Your task to perform on an android device: Open calendar and show me the fourth week of next month Image 0: 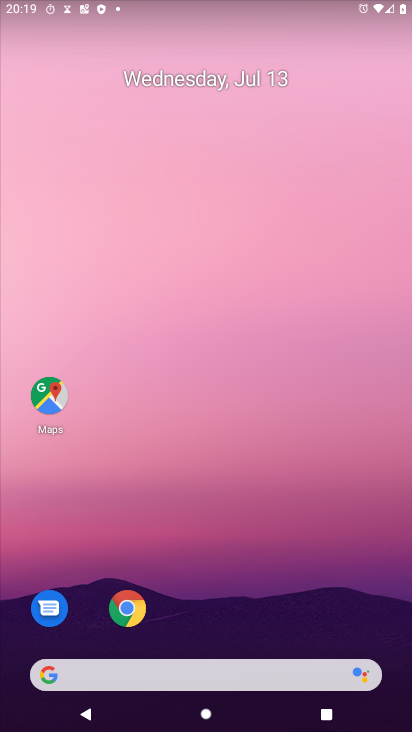
Step 0: drag from (201, 637) to (198, 126)
Your task to perform on an android device: Open calendar and show me the fourth week of next month Image 1: 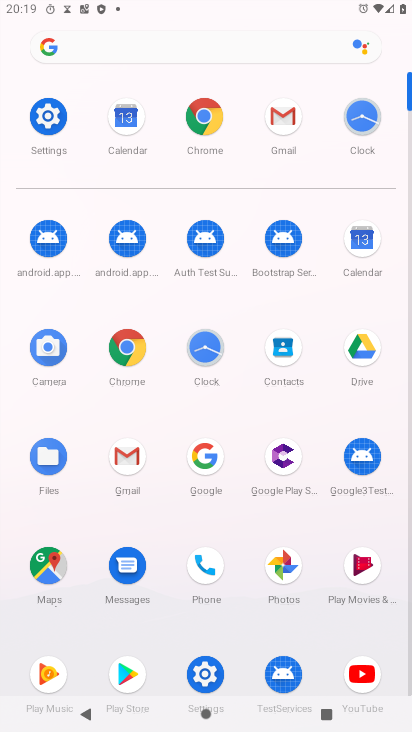
Step 1: click (371, 246)
Your task to perform on an android device: Open calendar and show me the fourth week of next month Image 2: 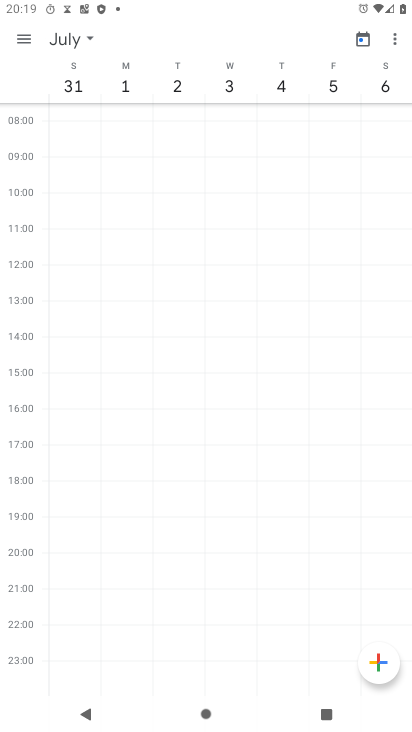
Step 2: click (17, 42)
Your task to perform on an android device: Open calendar and show me the fourth week of next month Image 3: 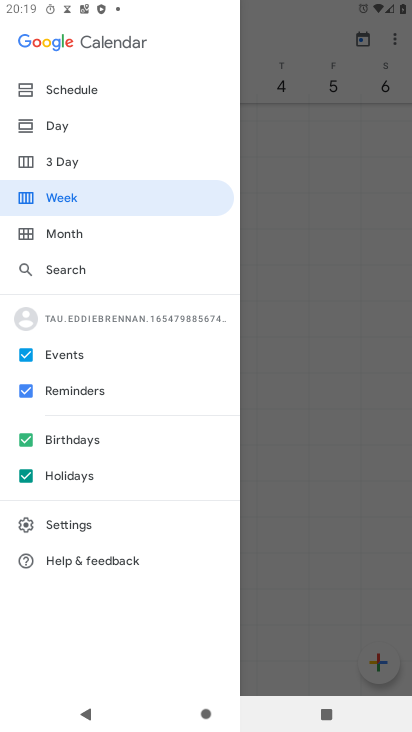
Step 3: click (69, 200)
Your task to perform on an android device: Open calendar and show me the fourth week of next month Image 4: 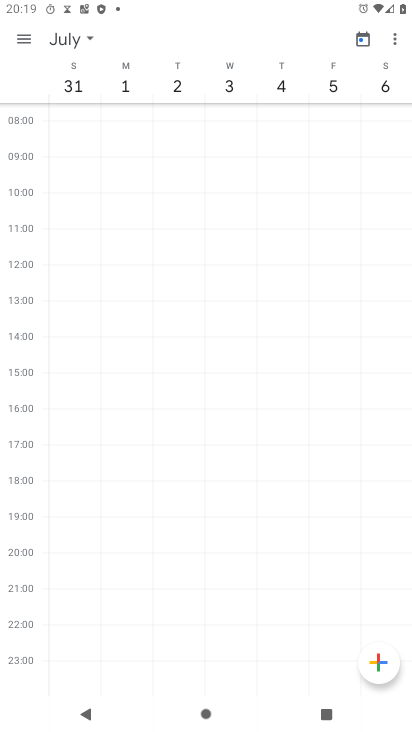
Step 4: task complete